Your task to perform on an android device: find which apps use the phone's location Image 0: 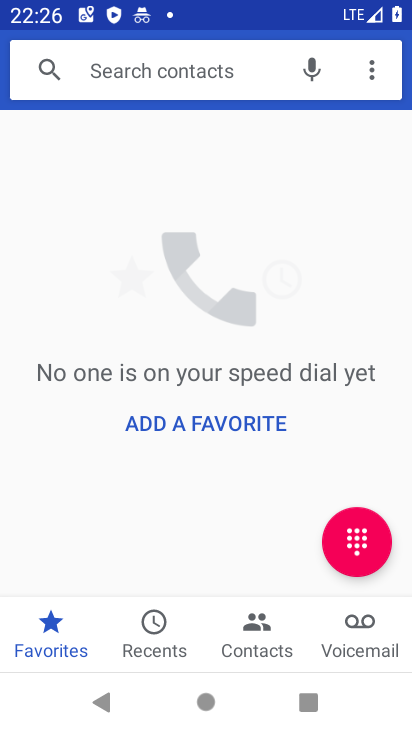
Step 0: press home button
Your task to perform on an android device: find which apps use the phone's location Image 1: 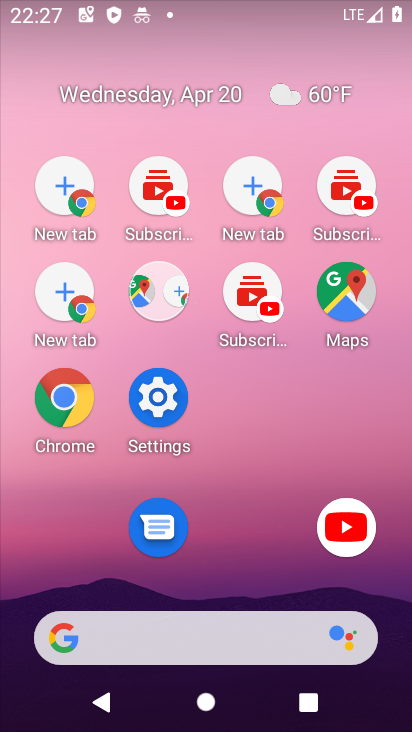
Step 1: drag from (294, 572) to (288, 58)
Your task to perform on an android device: find which apps use the phone's location Image 2: 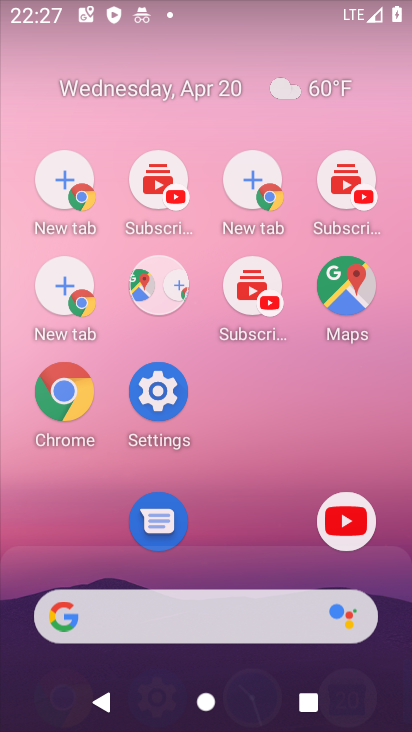
Step 2: click (184, 174)
Your task to perform on an android device: find which apps use the phone's location Image 3: 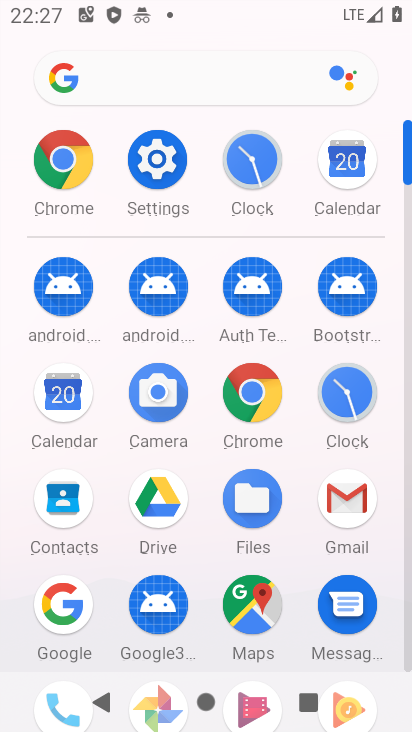
Step 3: click (164, 179)
Your task to perform on an android device: find which apps use the phone's location Image 4: 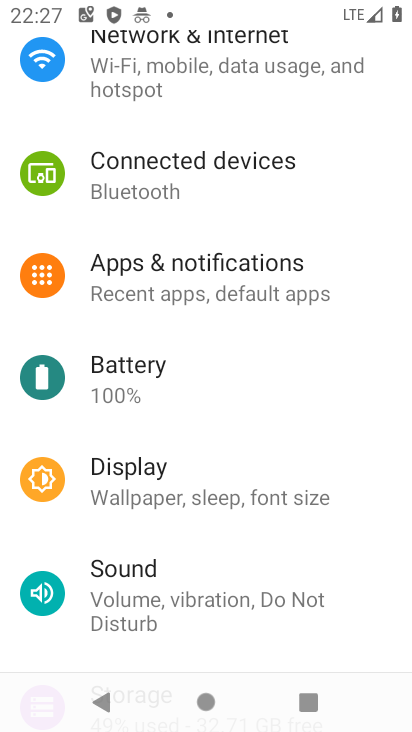
Step 4: drag from (215, 463) to (240, 159)
Your task to perform on an android device: find which apps use the phone's location Image 5: 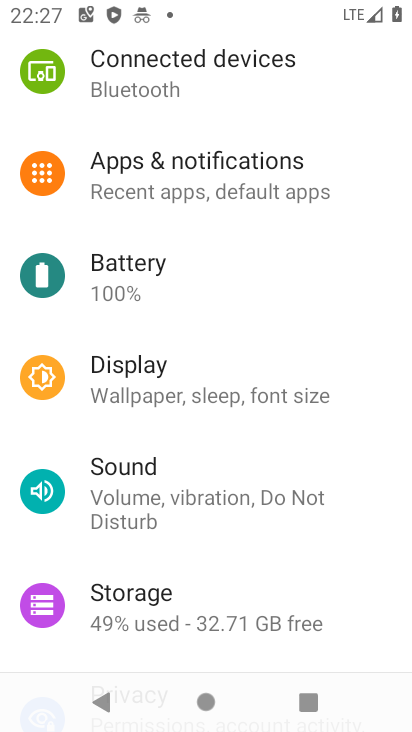
Step 5: drag from (217, 555) to (206, 244)
Your task to perform on an android device: find which apps use the phone's location Image 6: 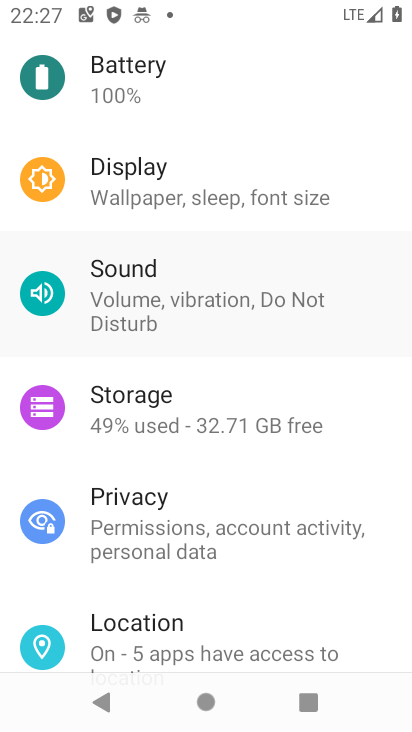
Step 6: drag from (246, 497) to (275, 303)
Your task to perform on an android device: find which apps use the phone's location Image 7: 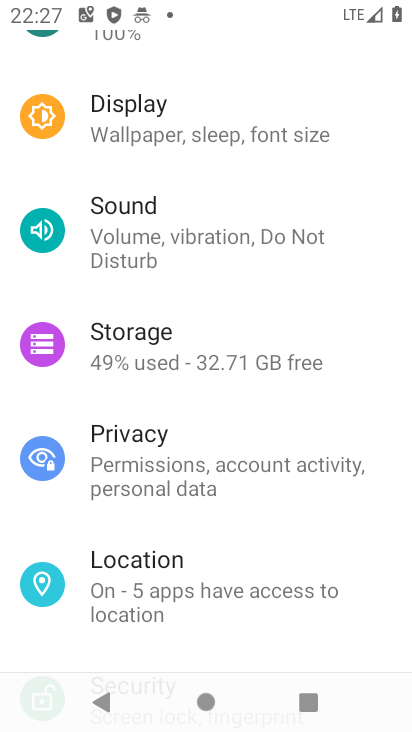
Step 7: click (163, 578)
Your task to perform on an android device: find which apps use the phone's location Image 8: 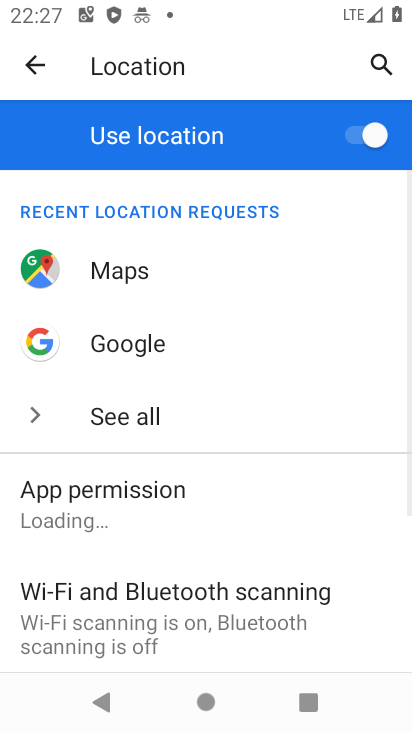
Step 8: click (83, 489)
Your task to perform on an android device: find which apps use the phone's location Image 9: 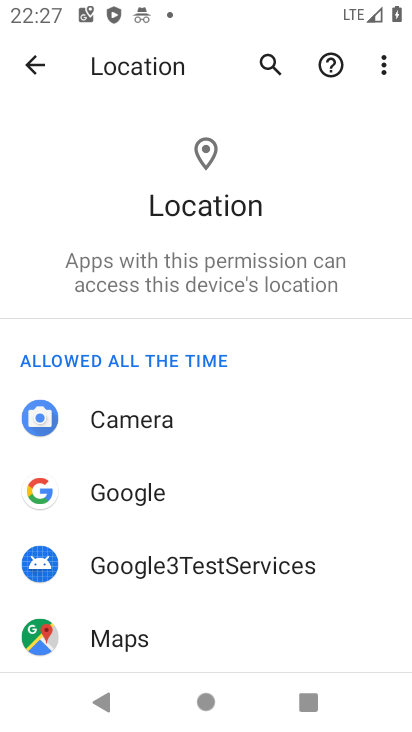
Step 9: click (225, 146)
Your task to perform on an android device: find which apps use the phone's location Image 10: 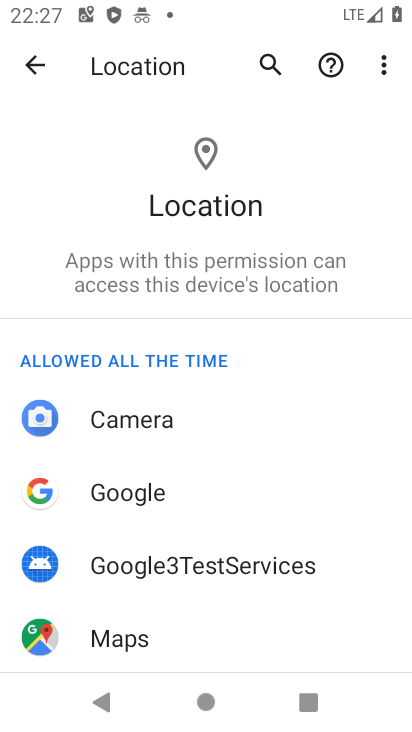
Step 10: drag from (242, 448) to (212, 268)
Your task to perform on an android device: find which apps use the phone's location Image 11: 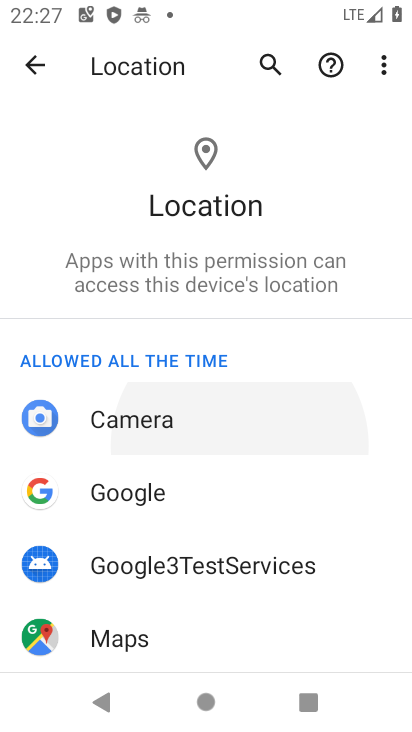
Step 11: drag from (226, 470) to (173, 223)
Your task to perform on an android device: find which apps use the phone's location Image 12: 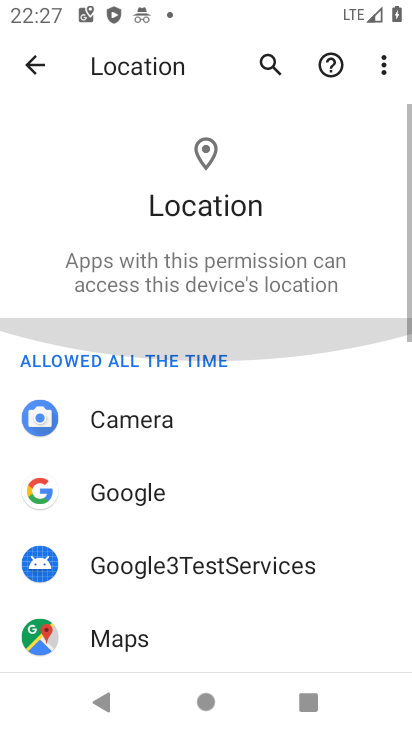
Step 12: drag from (202, 555) to (197, 233)
Your task to perform on an android device: find which apps use the phone's location Image 13: 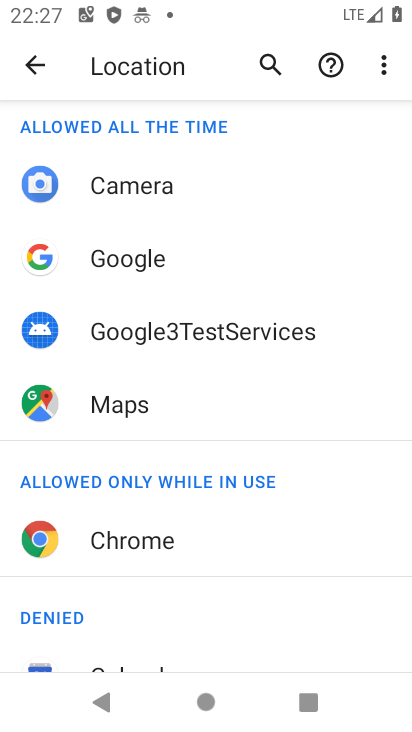
Step 13: drag from (187, 198) to (186, 267)
Your task to perform on an android device: find which apps use the phone's location Image 14: 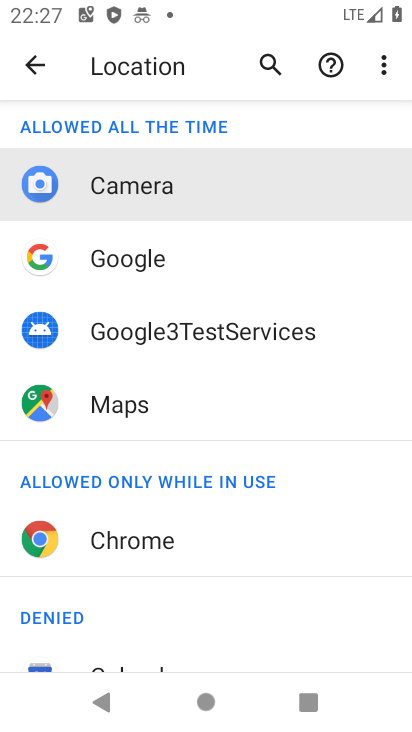
Step 14: click (141, 214)
Your task to perform on an android device: find which apps use the phone's location Image 15: 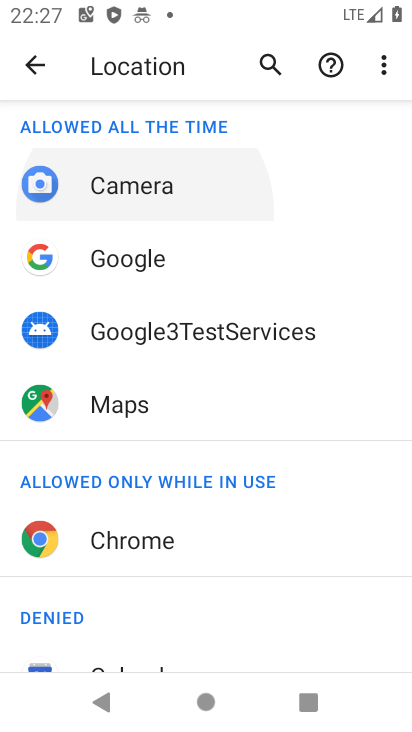
Step 15: click (291, 313)
Your task to perform on an android device: find which apps use the phone's location Image 16: 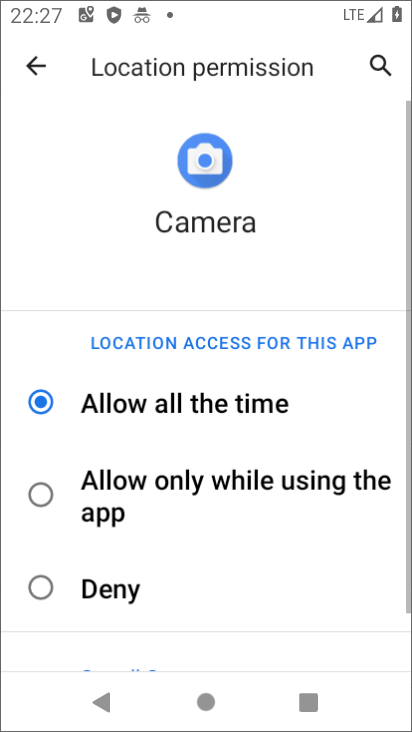
Step 16: drag from (253, 258) to (239, 183)
Your task to perform on an android device: find which apps use the phone's location Image 17: 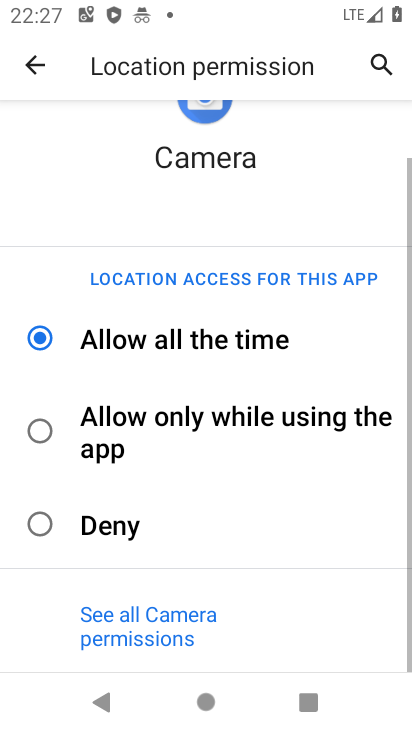
Step 17: click (197, 133)
Your task to perform on an android device: find which apps use the phone's location Image 18: 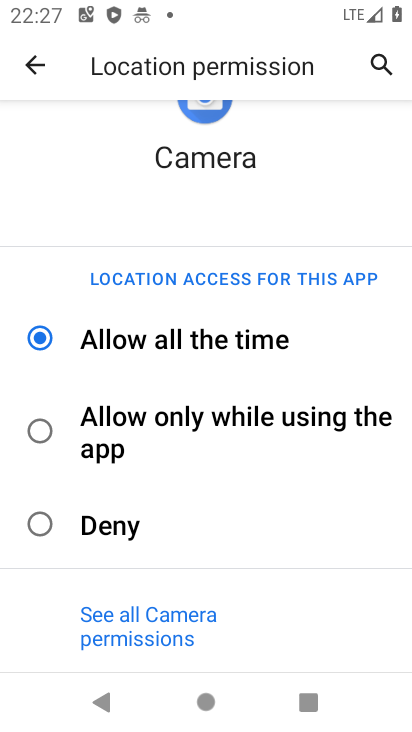
Step 18: click (32, 65)
Your task to perform on an android device: find which apps use the phone's location Image 19: 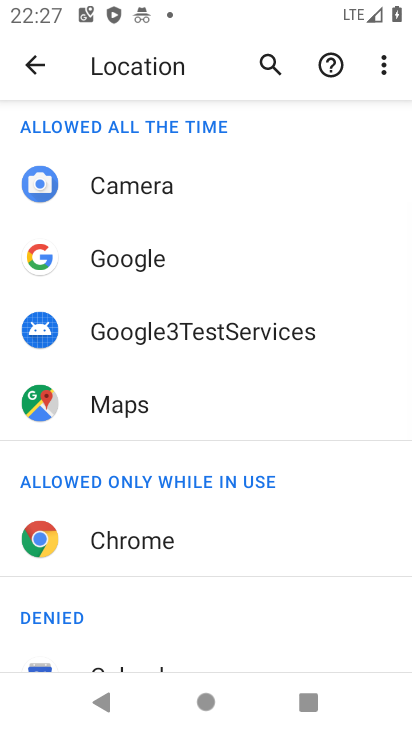
Step 19: task complete